Your task to perform on an android device: Clear the shopping cart on ebay. Search for "macbook pro" on ebay, select the first entry, and add it to the cart. Image 0: 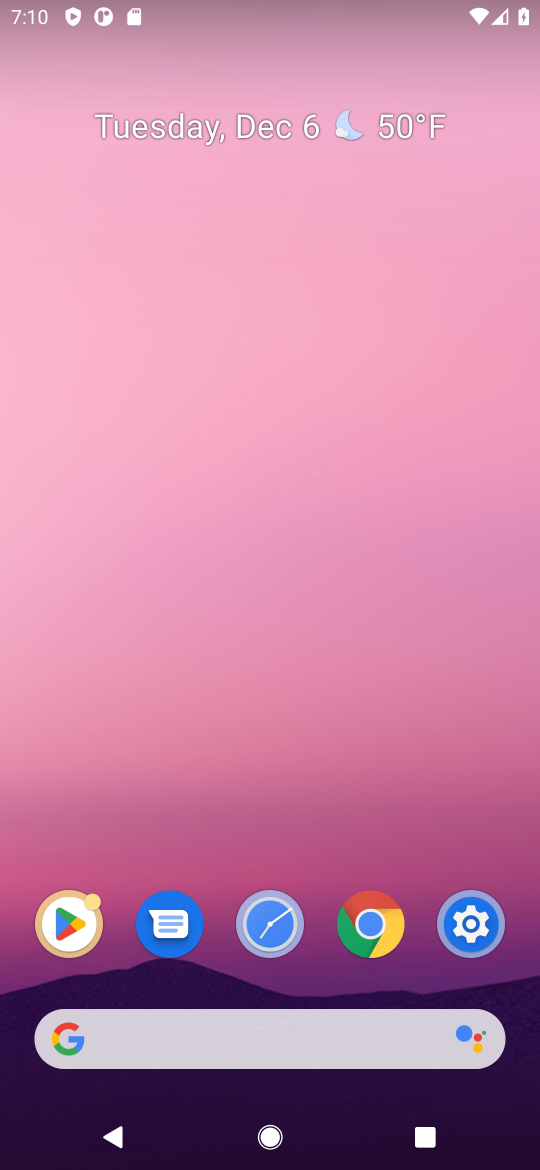
Step 0: click (284, 1018)
Your task to perform on an android device: Clear the shopping cart on ebay. Search for "macbook pro" on ebay, select the first entry, and add it to the cart. Image 1: 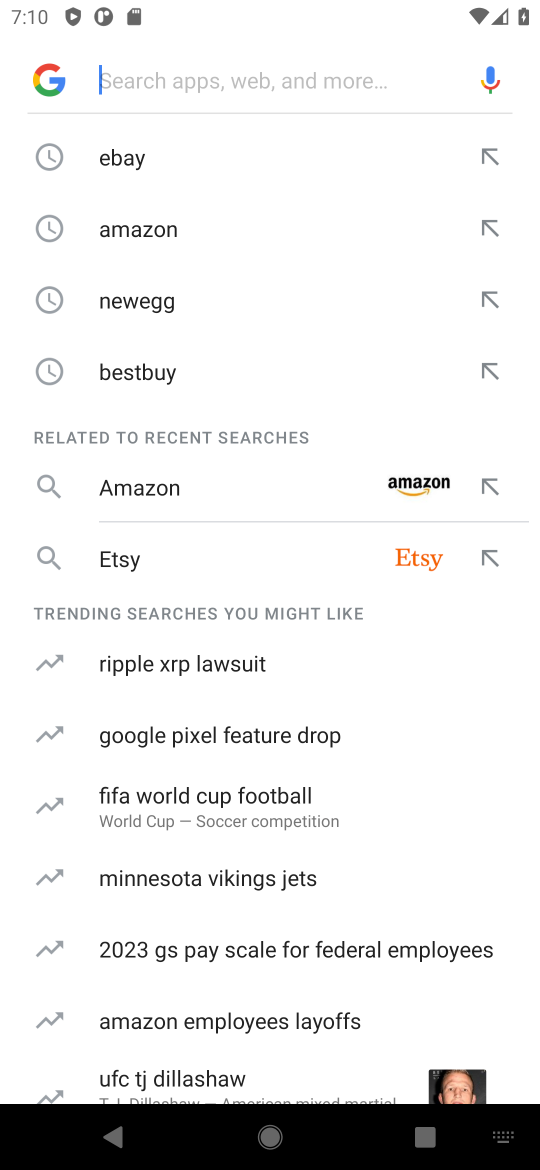
Step 1: type "ebay"
Your task to perform on an android device: Clear the shopping cart on ebay. Search for "macbook pro" on ebay, select the first entry, and add it to the cart. Image 2: 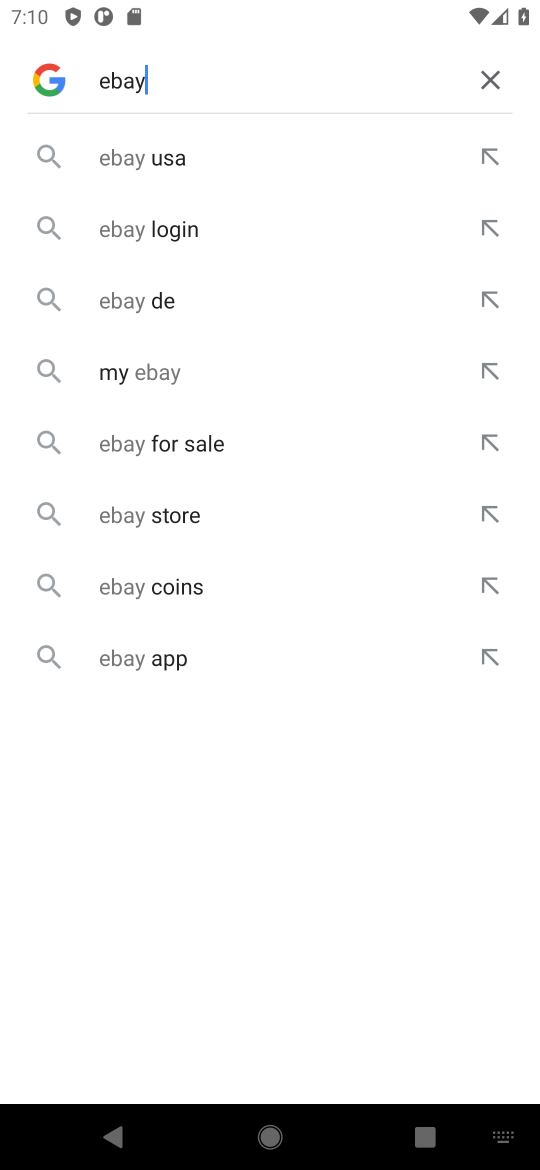
Step 2: click (210, 174)
Your task to perform on an android device: Clear the shopping cart on ebay. Search for "macbook pro" on ebay, select the first entry, and add it to the cart. Image 3: 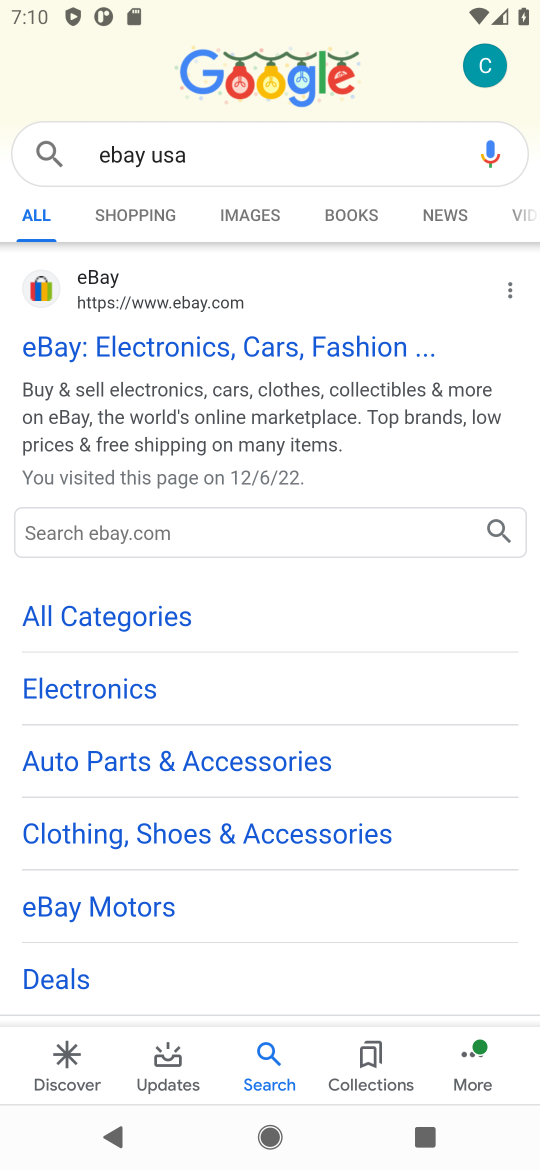
Step 3: click (65, 323)
Your task to perform on an android device: Clear the shopping cart on ebay. Search for "macbook pro" on ebay, select the first entry, and add it to the cart. Image 4: 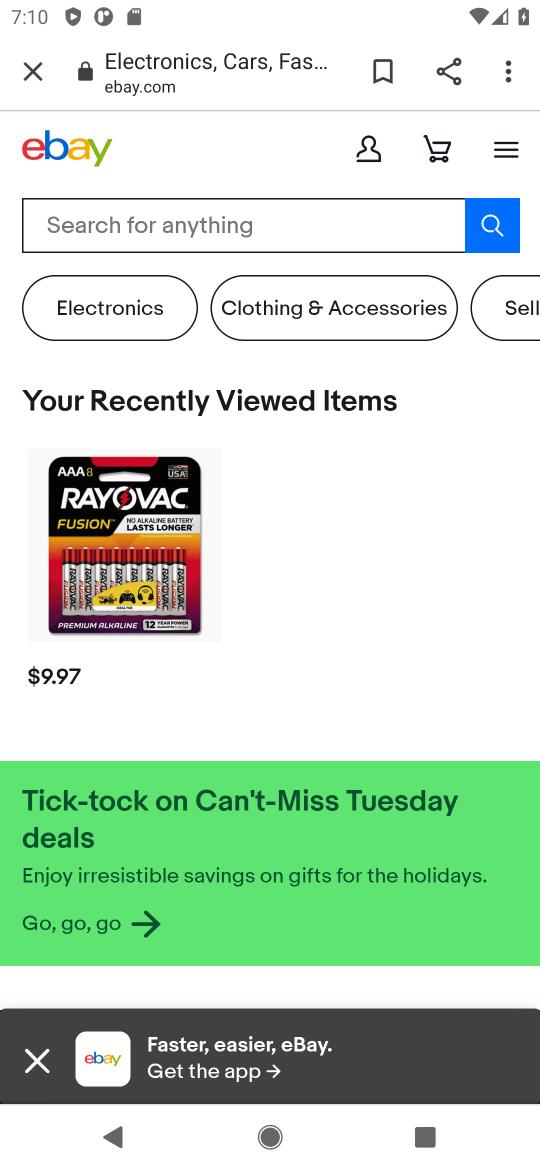
Step 4: click (195, 222)
Your task to perform on an android device: Clear the shopping cart on ebay. Search for "macbook pro" on ebay, select the first entry, and add it to the cart. Image 5: 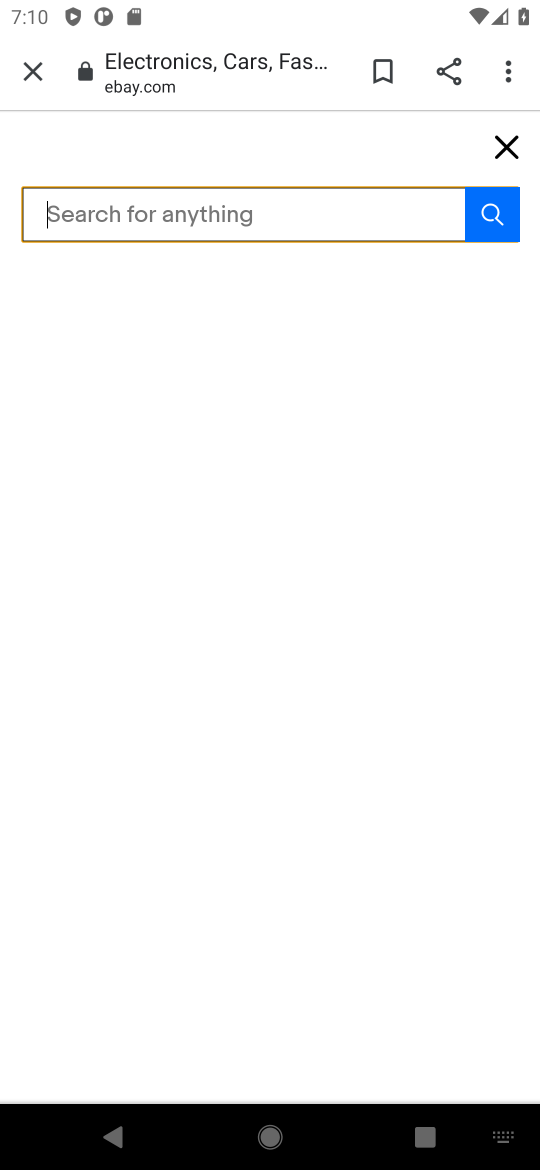
Step 5: type "macbook pro"
Your task to perform on an android device: Clear the shopping cart on ebay. Search for "macbook pro" on ebay, select the first entry, and add it to the cart. Image 6: 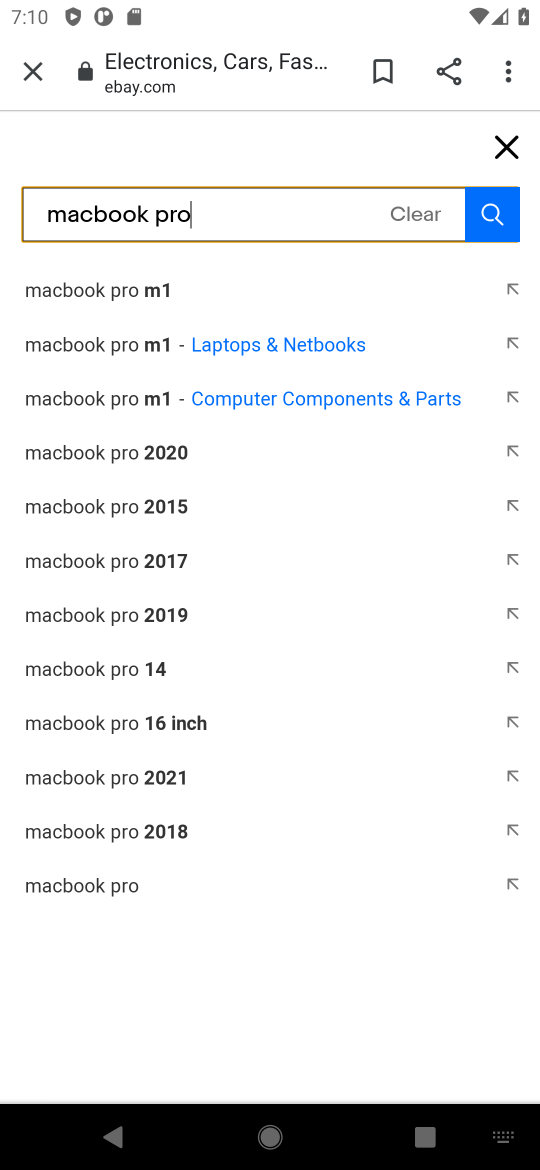
Step 6: click (486, 211)
Your task to perform on an android device: Clear the shopping cart on ebay. Search for "macbook pro" on ebay, select the first entry, and add it to the cart. Image 7: 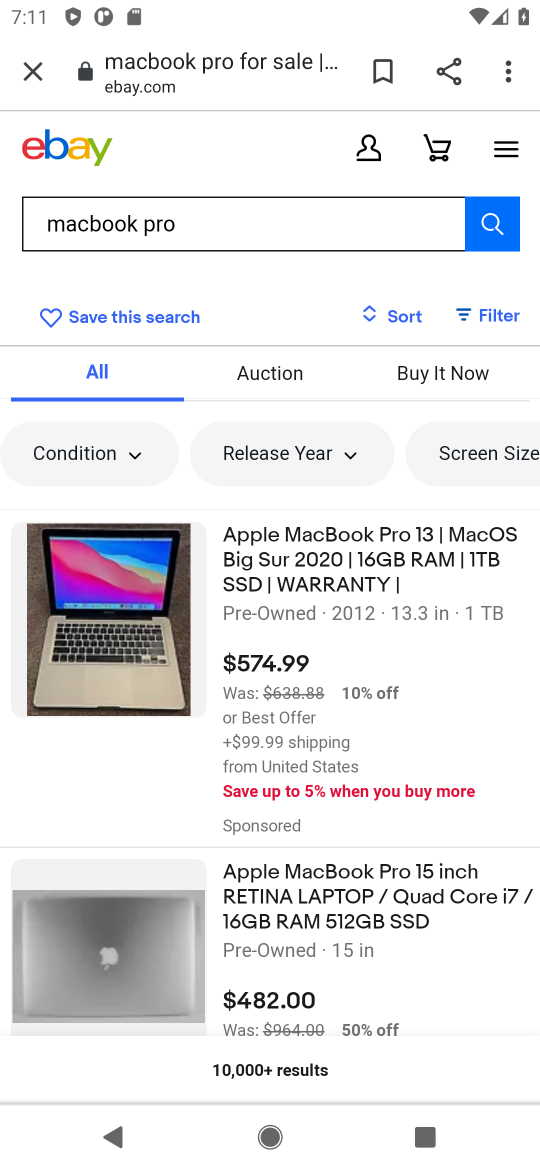
Step 7: click (380, 540)
Your task to perform on an android device: Clear the shopping cart on ebay. Search for "macbook pro" on ebay, select the first entry, and add it to the cart. Image 8: 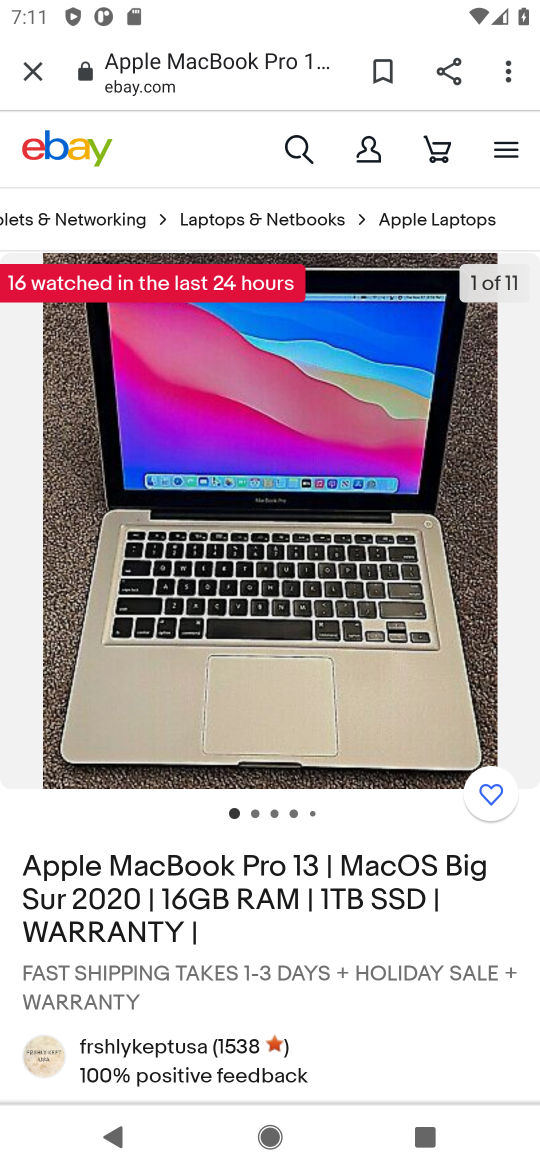
Step 8: drag from (292, 926) to (297, 351)
Your task to perform on an android device: Clear the shopping cart on ebay. Search for "macbook pro" on ebay, select the first entry, and add it to the cart. Image 9: 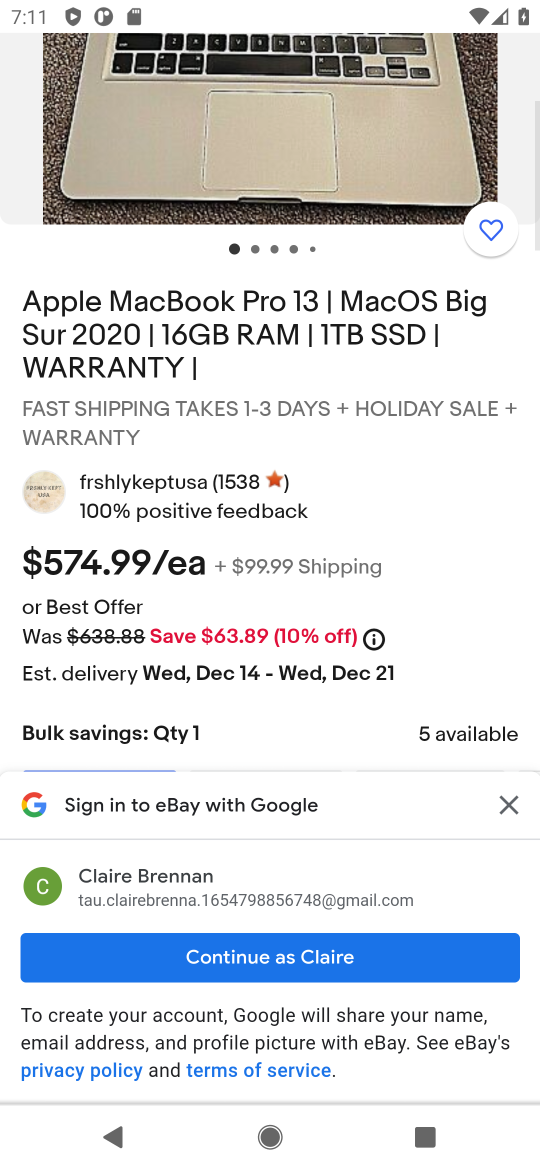
Step 9: click (517, 811)
Your task to perform on an android device: Clear the shopping cart on ebay. Search for "macbook pro" on ebay, select the first entry, and add it to the cart. Image 10: 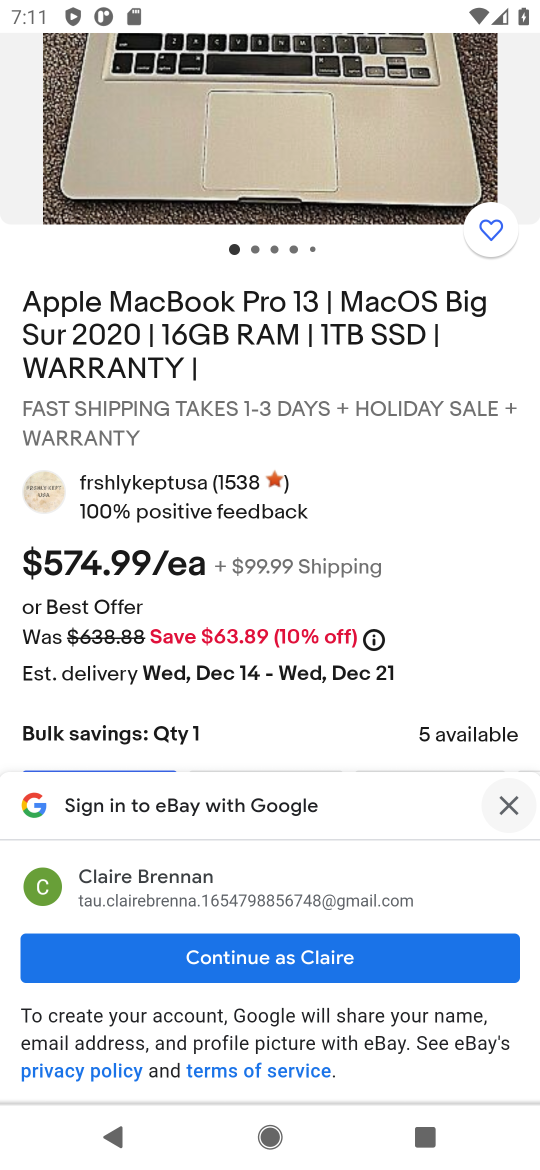
Step 10: click (502, 814)
Your task to perform on an android device: Clear the shopping cart on ebay. Search for "macbook pro" on ebay, select the first entry, and add it to the cart. Image 11: 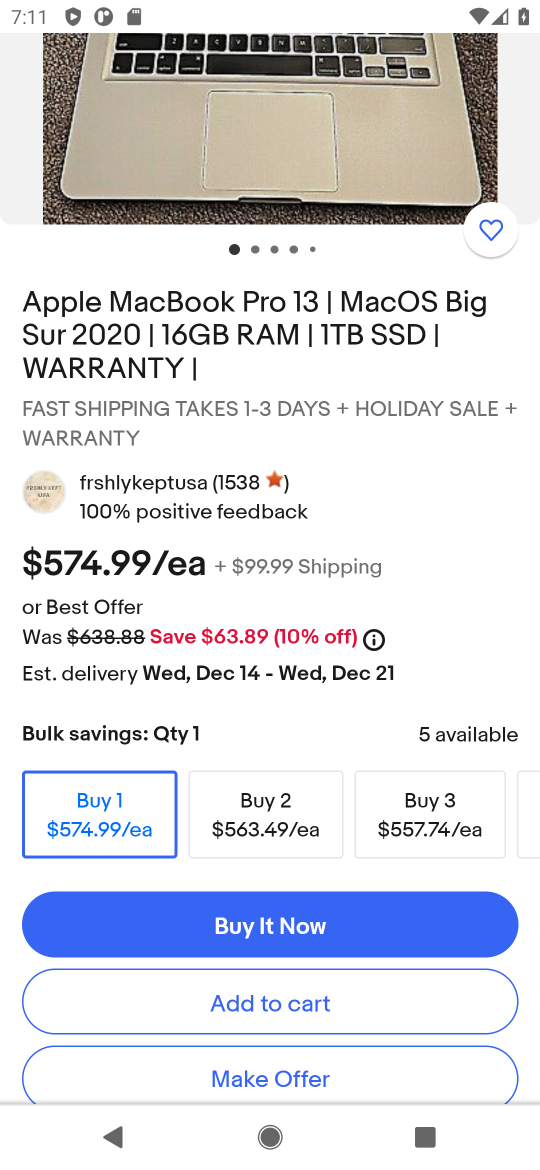
Step 11: click (328, 1004)
Your task to perform on an android device: Clear the shopping cart on ebay. Search for "macbook pro" on ebay, select the first entry, and add it to the cart. Image 12: 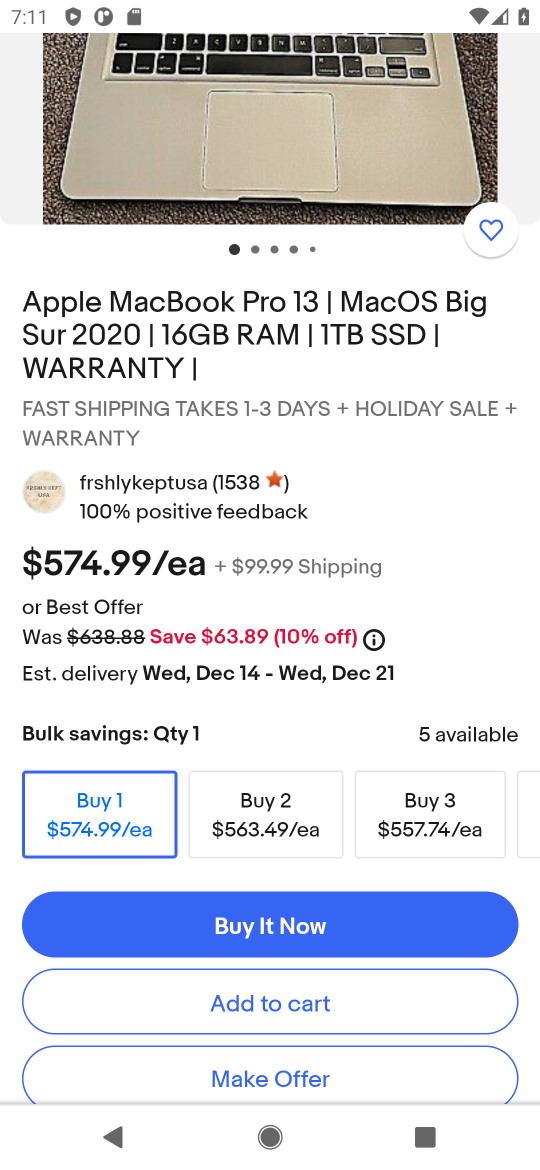
Step 12: task complete